Your task to perform on an android device: Clear the shopping cart on amazon.com. Image 0: 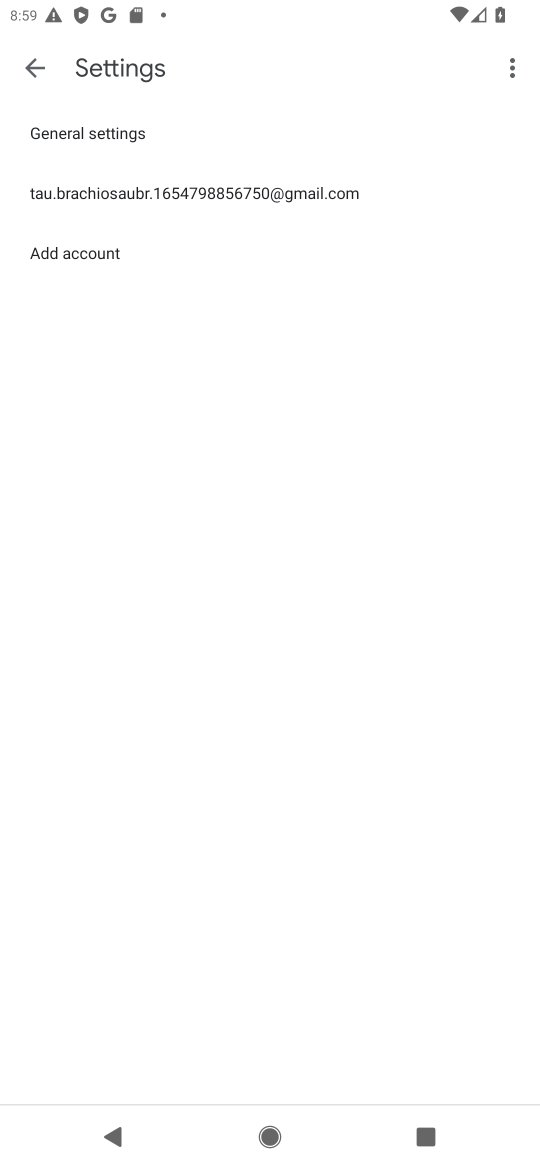
Step 0: press home button
Your task to perform on an android device: Clear the shopping cart on amazon.com. Image 1: 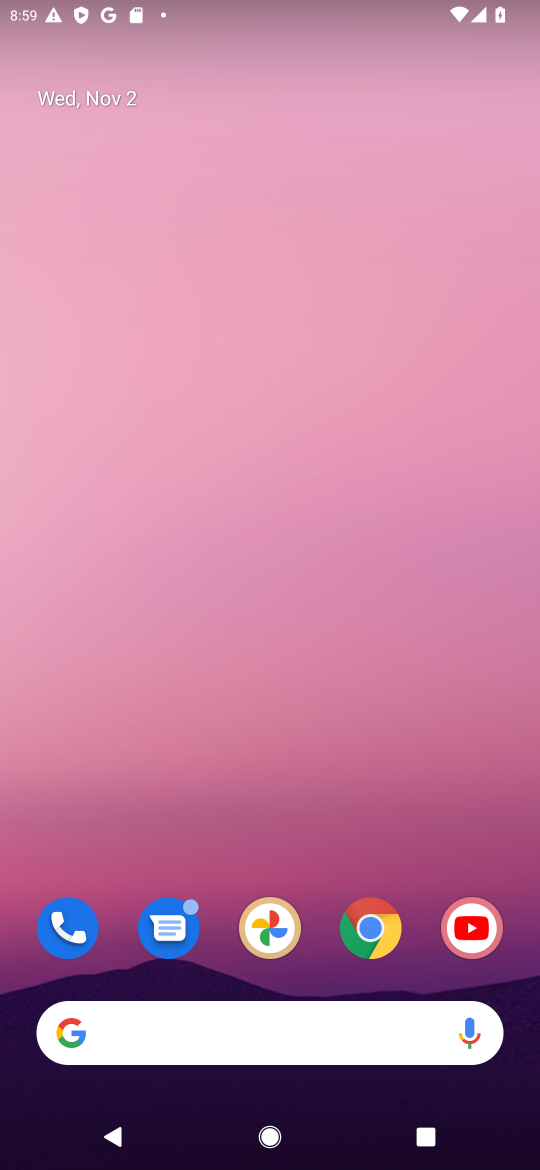
Step 1: click (374, 933)
Your task to perform on an android device: Clear the shopping cart on amazon.com. Image 2: 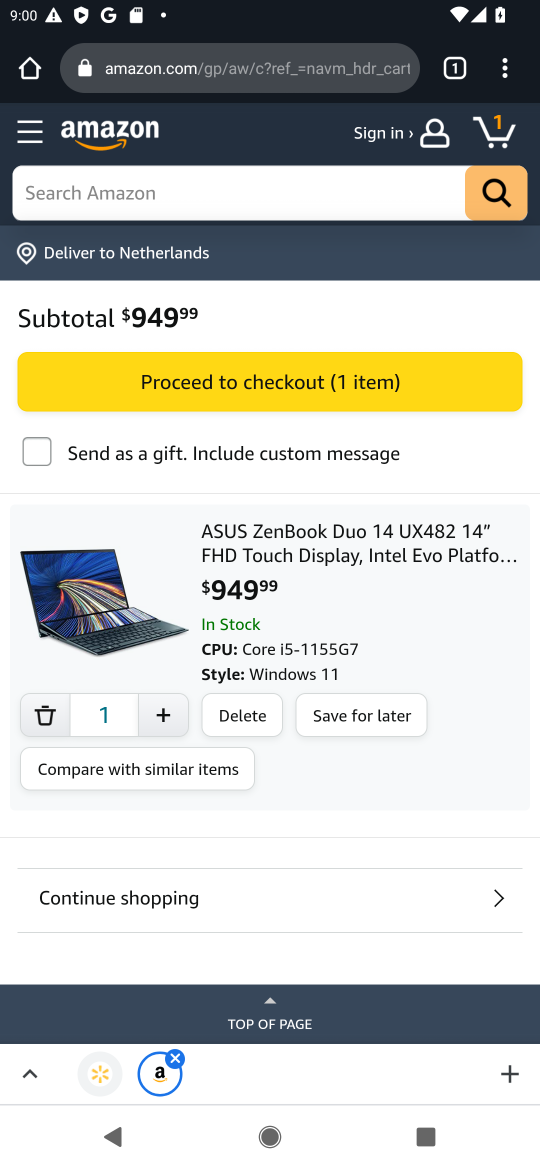
Step 2: click (207, 76)
Your task to perform on an android device: Clear the shopping cart on amazon.com. Image 3: 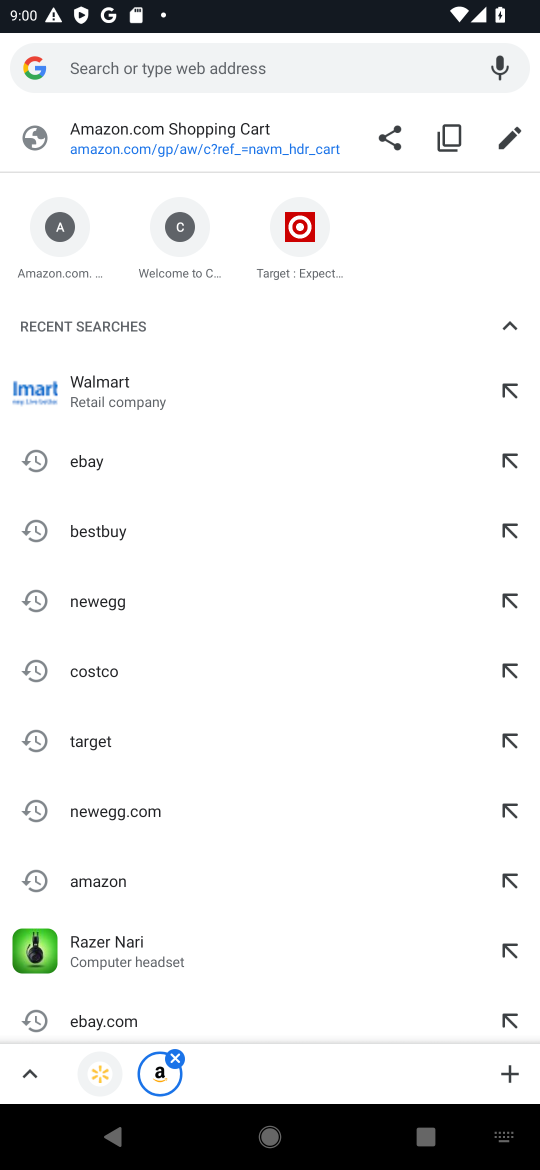
Step 3: type "amazon.com"
Your task to perform on an android device: Clear the shopping cart on amazon.com. Image 4: 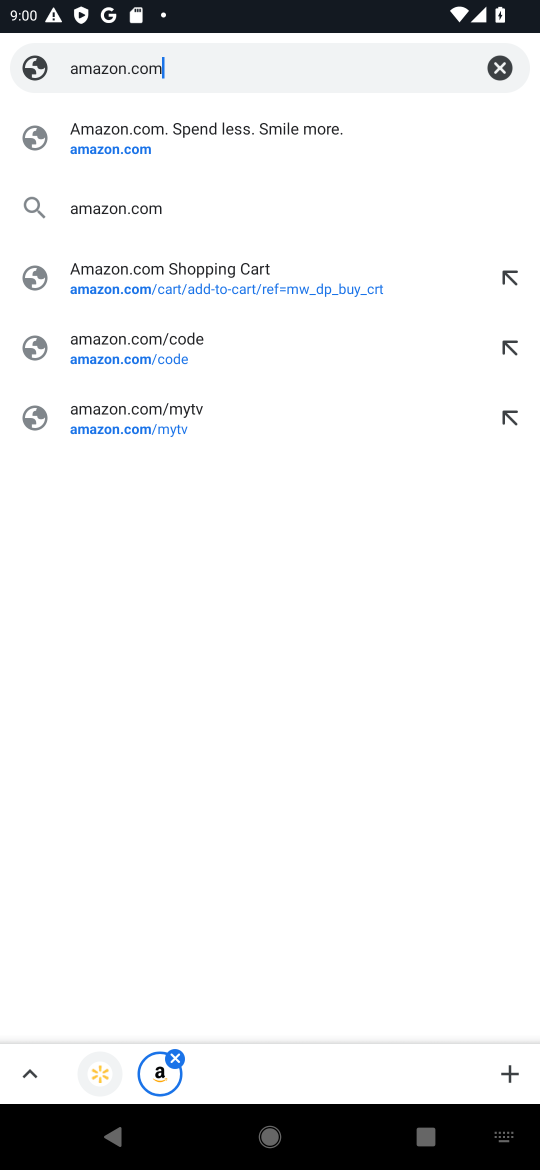
Step 4: click (268, 124)
Your task to perform on an android device: Clear the shopping cart on amazon.com. Image 5: 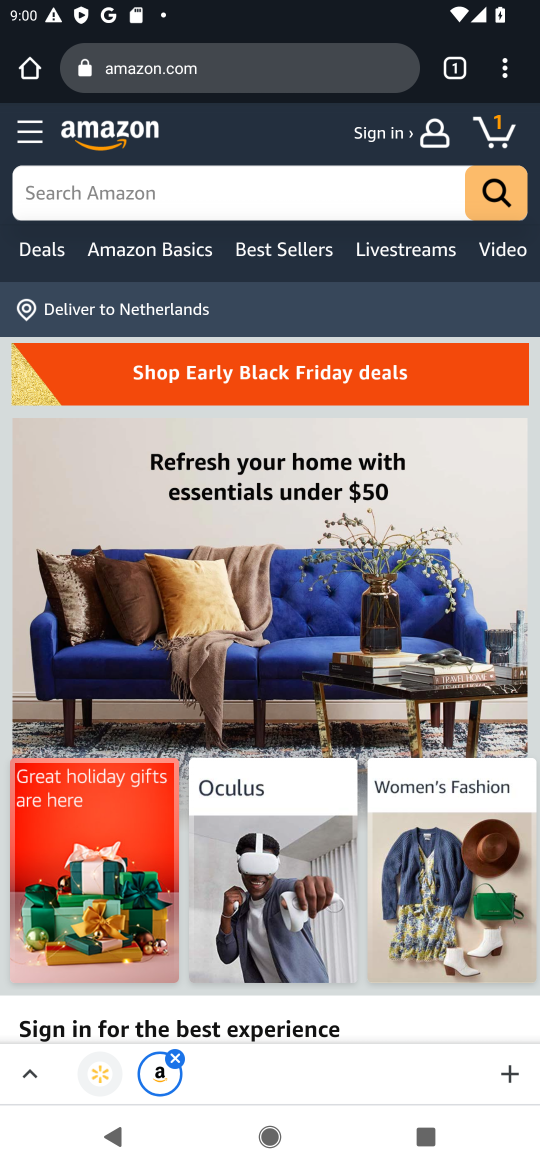
Step 5: click (507, 136)
Your task to perform on an android device: Clear the shopping cart on amazon.com. Image 6: 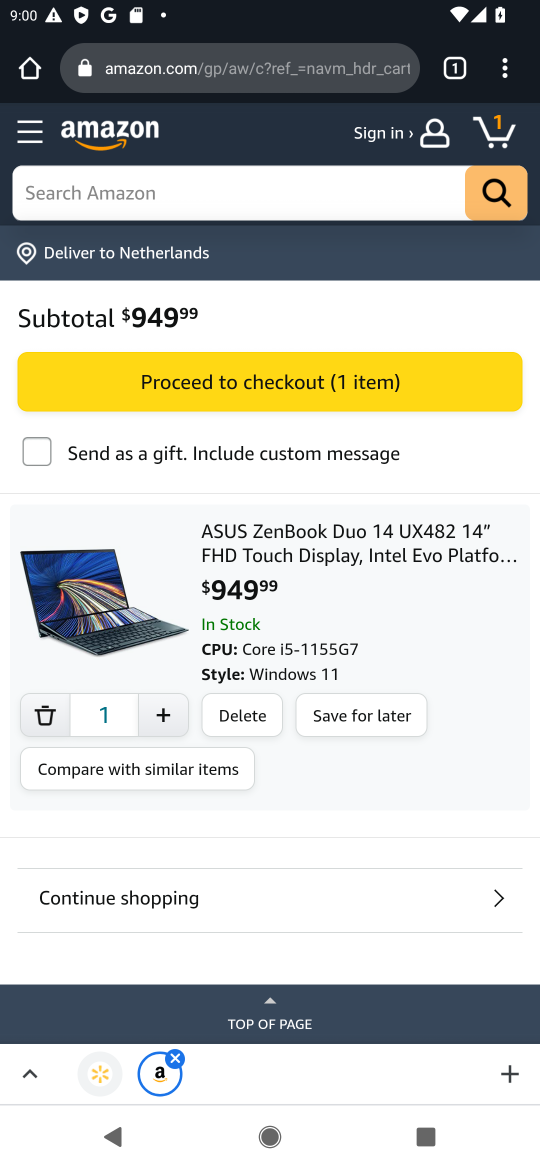
Step 6: click (263, 701)
Your task to perform on an android device: Clear the shopping cart on amazon.com. Image 7: 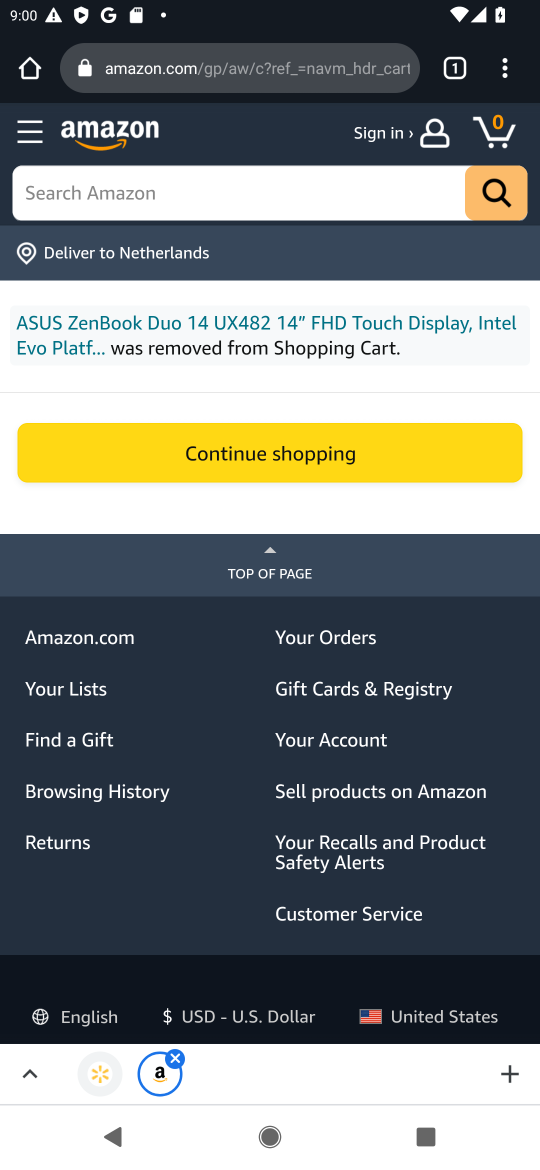
Step 7: click (353, 438)
Your task to perform on an android device: Clear the shopping cart on amazon.com. Image 8: 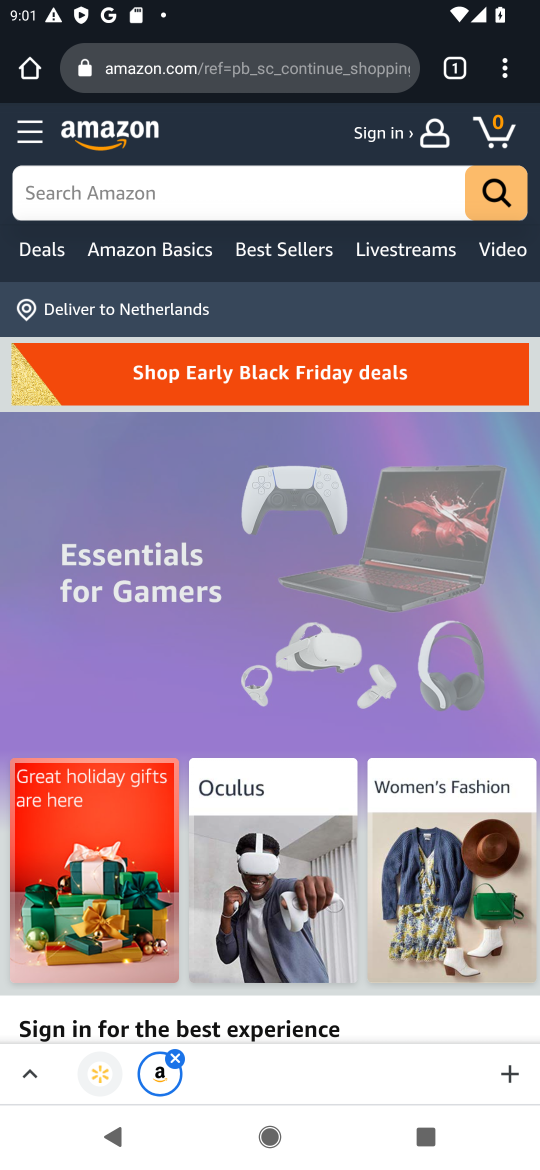
Step 8: drag from (459, 881) to (380, 583)
Your task to perform on an android device: Clear the shopping cart on amazon.com. Image 9: 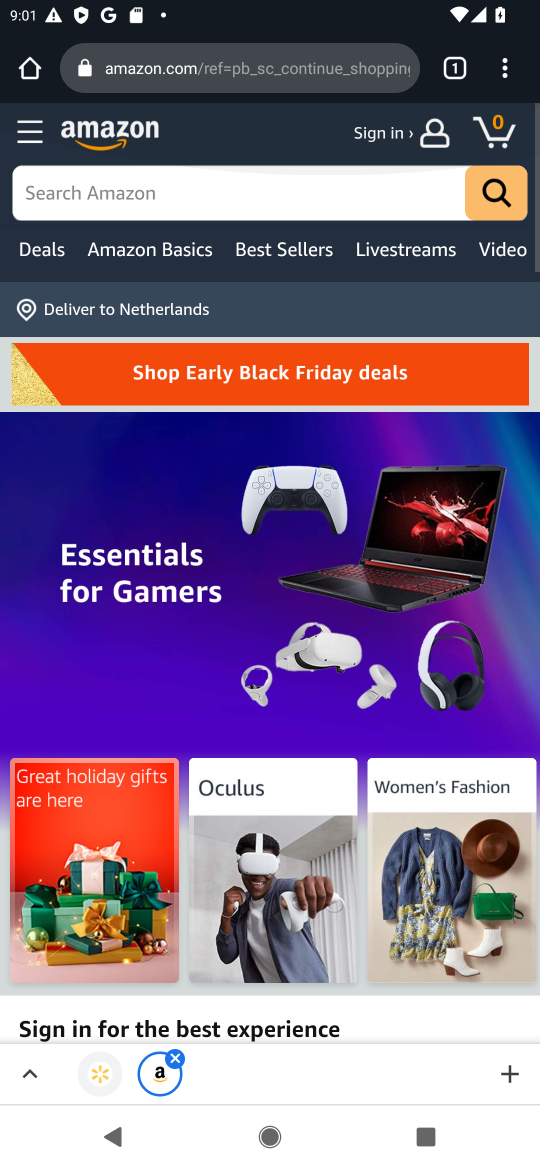
Step 9: drag from (329, 582) to (264, 521)
Your task to perform on an android device: Clear the shopping cart on amazon.com. Image 10: 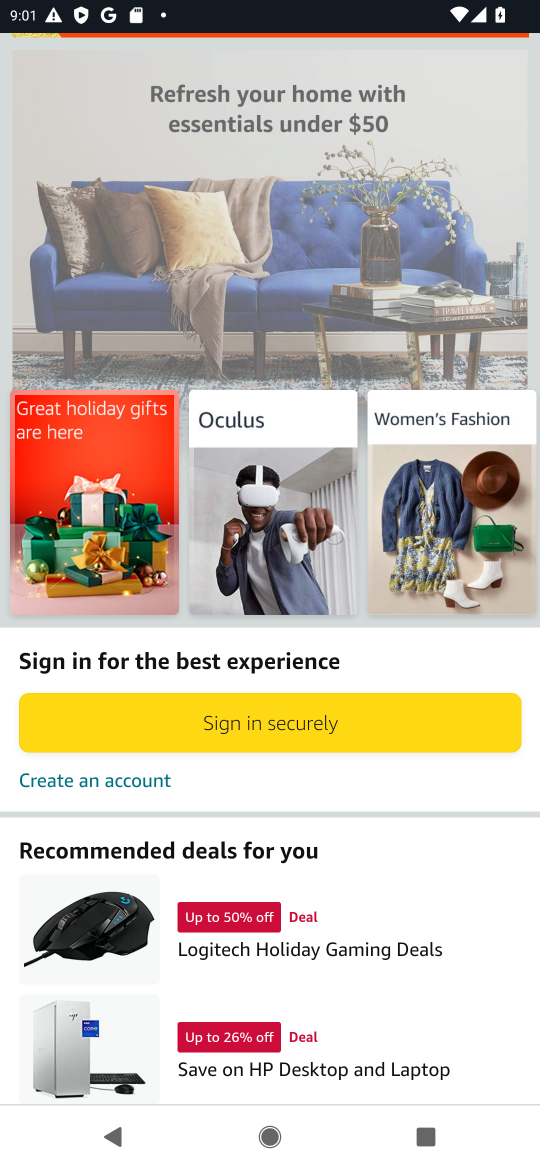
Step 10: drag from (268, 582) to (279, 492)
Your task to perform on an android device: Clear the shopping cart on amazon.com. Image 11: 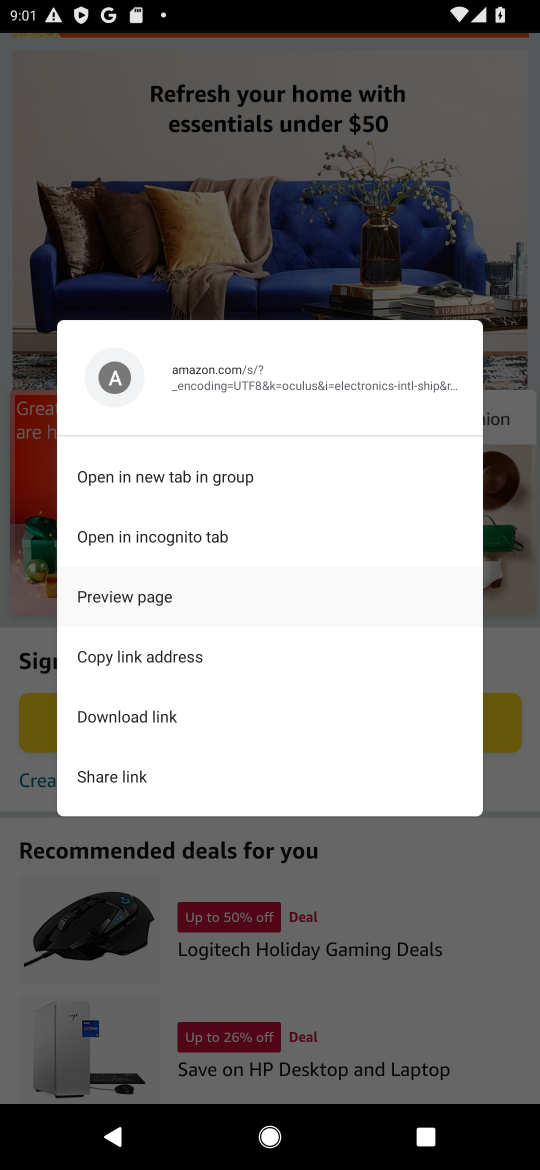
Step 11: click (284, 505)
Your task to perform on an android device: Clear the shopping cart on amazon.com. Image 12: 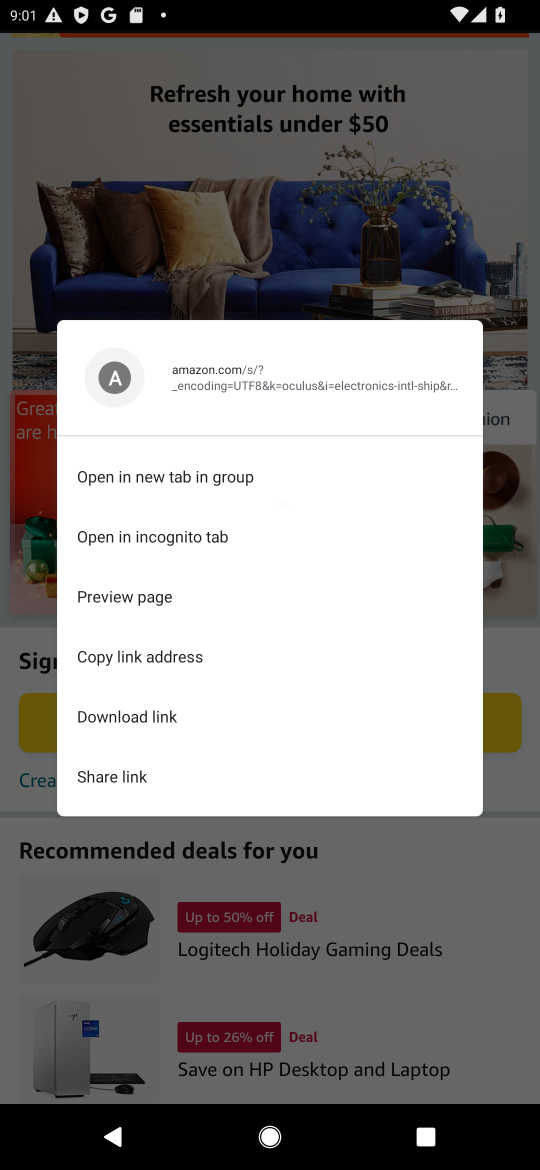
Step 12: click (356, 927)
Your task to perform on an android device: Clear the shopping cart on amazon.com. Image 13: 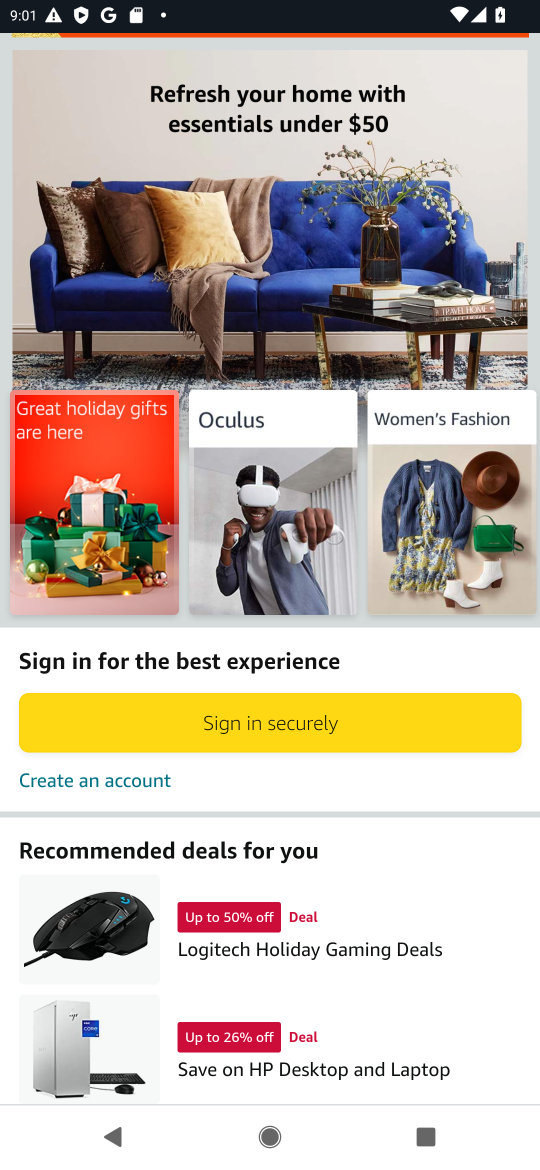
Step 13: drag from (252, 687) to (342, 366)
Your task to perform on an android device: Clear the shopping cart on amazon.com. Image 14: 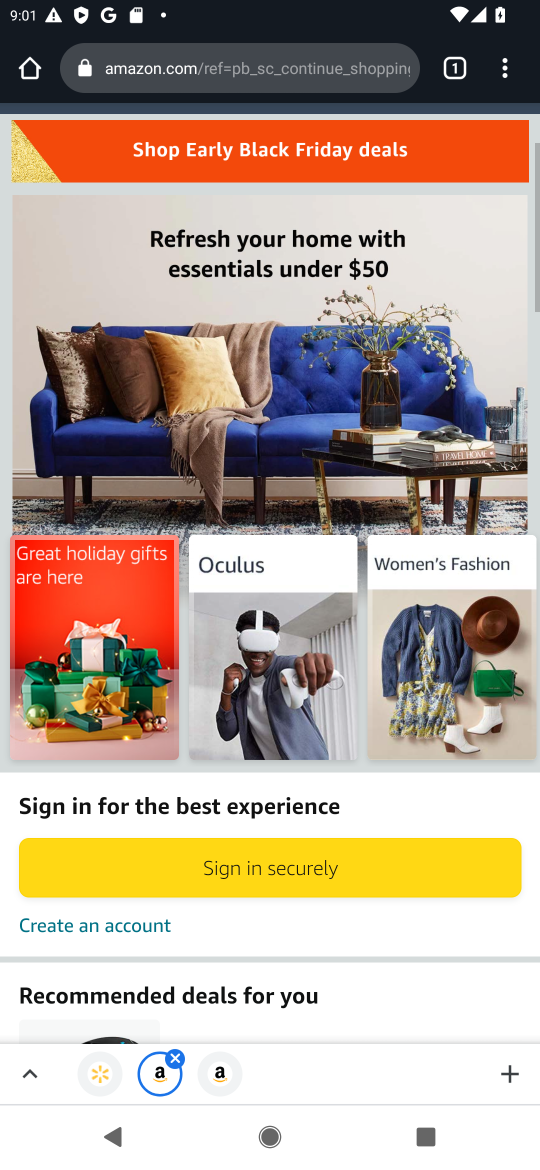
Step 14: drag from (284, 700) to (286, 394)
Your task to perform on an android device: Clear the shopping cart on amazon.com. Image 15: 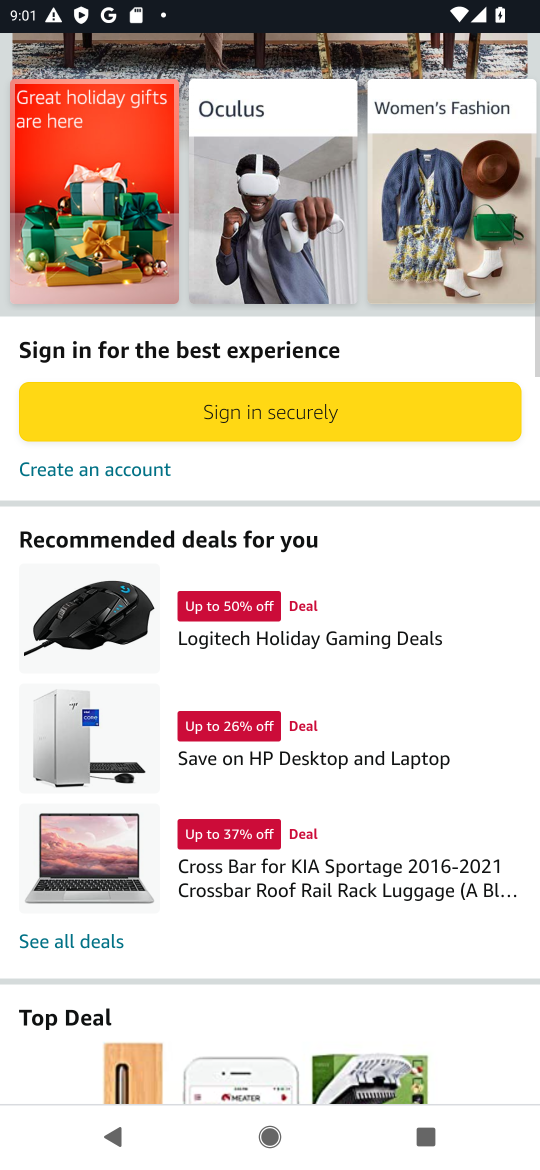
Step 15: drag from (337, 491) to (334, 346)
Your task to perform on an android device: Clear the shopping cart on amazon.com. Image 16: 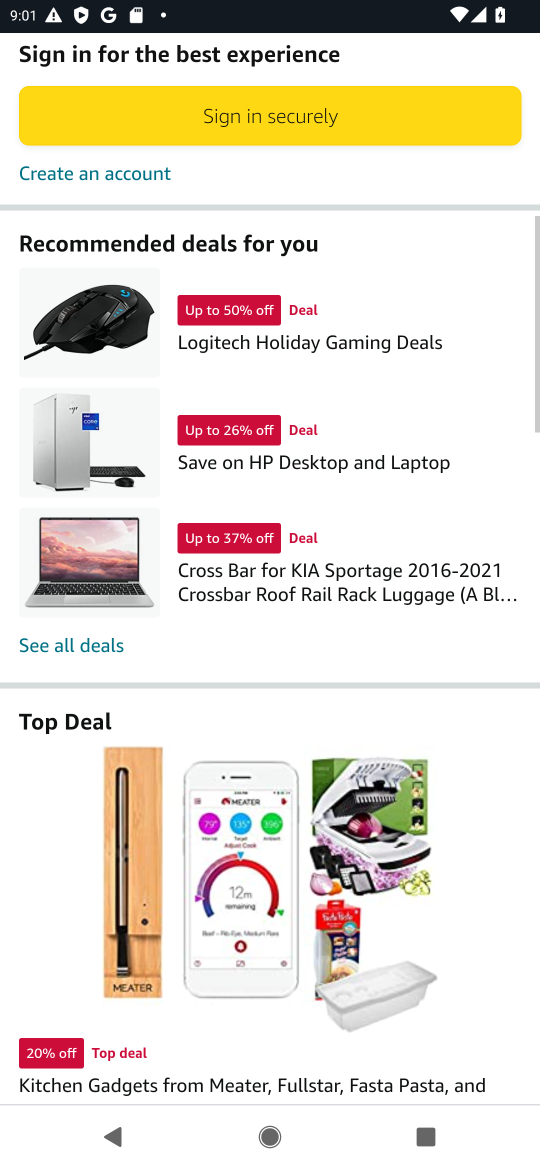
Step 16: drag from (349, 556) to (377, 469)
Your task to perform on an android device: Clear the shopping cart on amazon.com. Image 17: 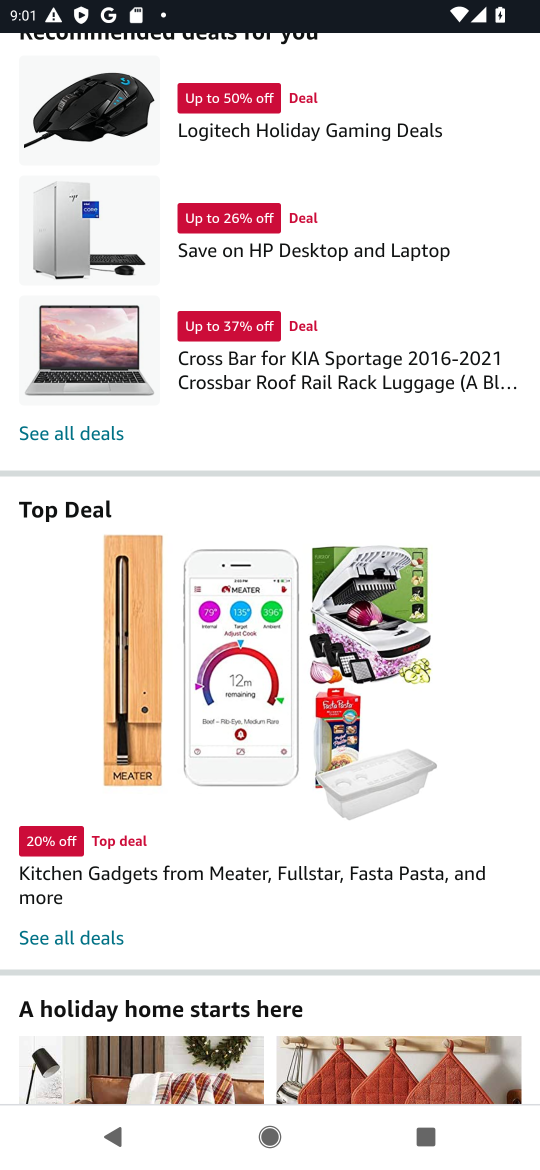
Step 17: drag from (436, 752) to (431, 457)
Your task to perform on an android device: Clear the shopping cart on amazon.com. Image 18: 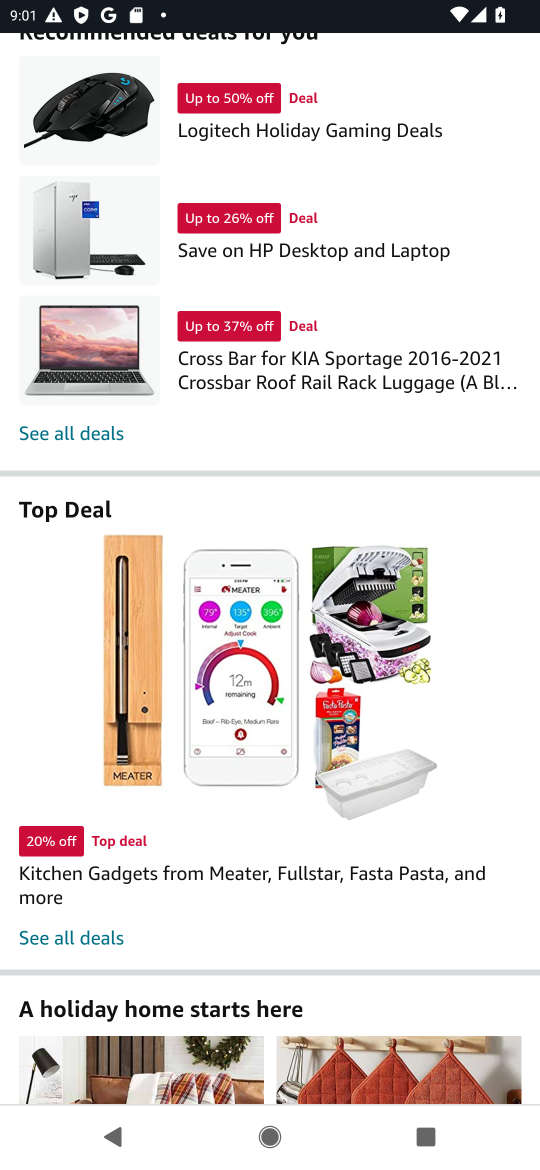
Step 18: drag from (388, 723) to (384, 343)
Your task to perform on an android device: Clear the shopping cart on amazon.com. Image 19: 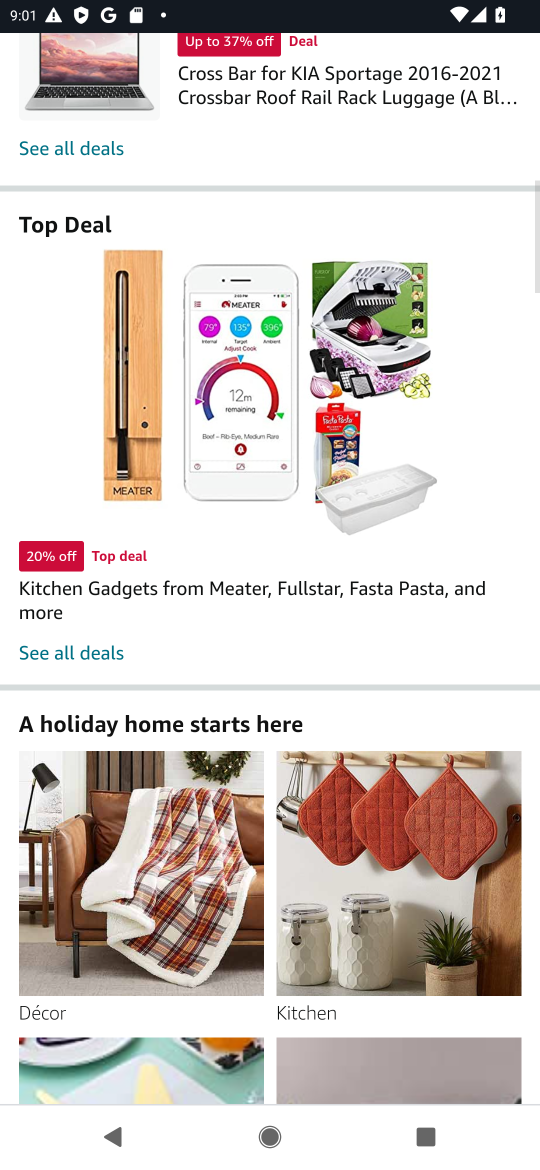
Step 19: click (376, 315)
Your task to perform on an android device: Clear the shopping cart on amazon.com. Image 20: 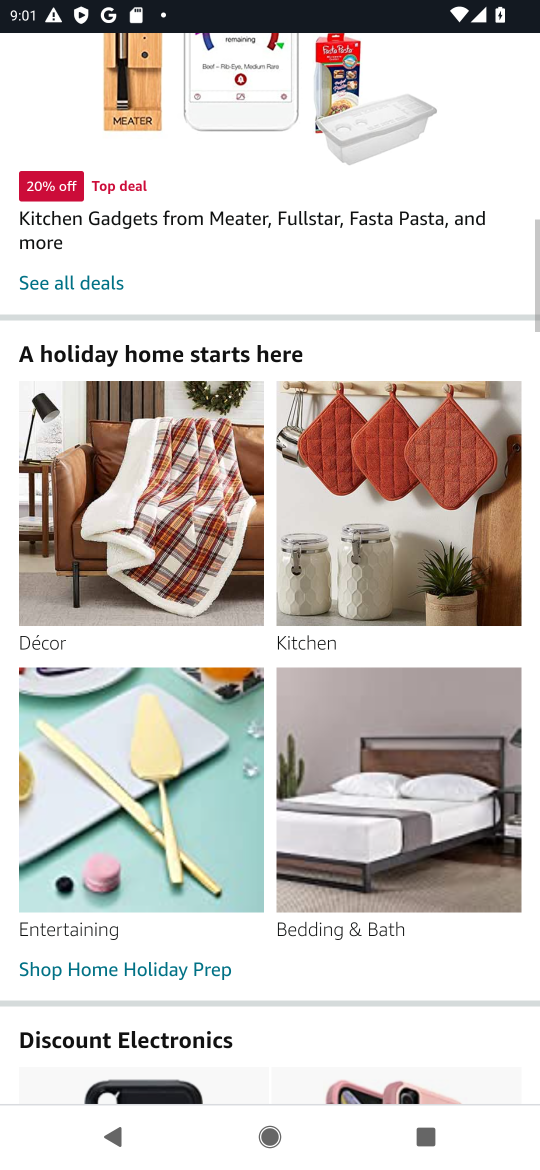
Step 20: drag from (398, 474) to (384, 391)
Your task to perform on an android device: Clear the shopping cart on amazon.com. Image 21: 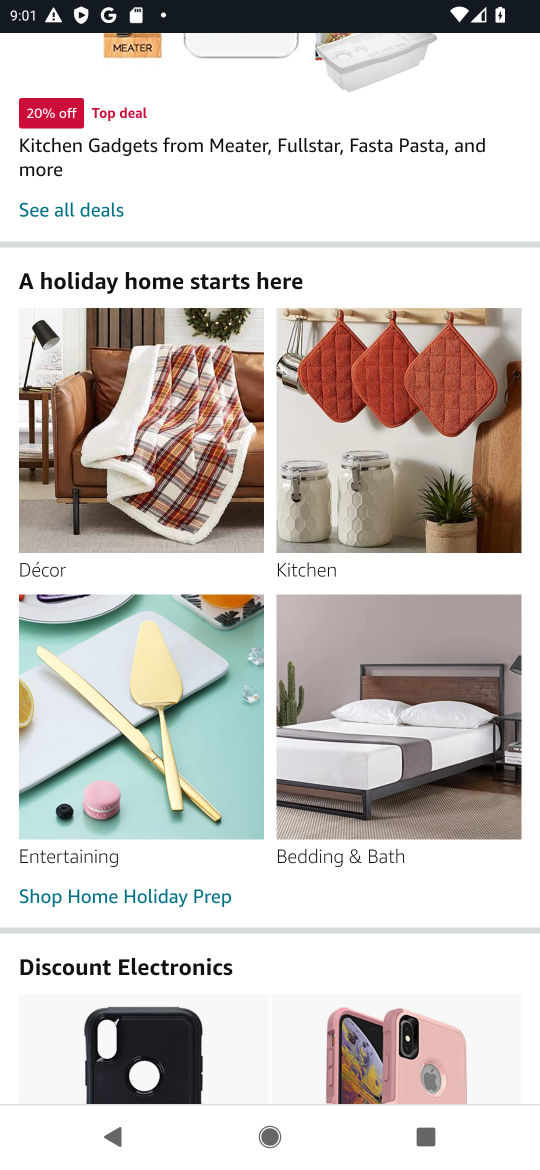
Step 21: drag from (429, 893) to (398, 298)
Your task to perform on an android device: Clear the shopping cart on amazon.com. Image 22: 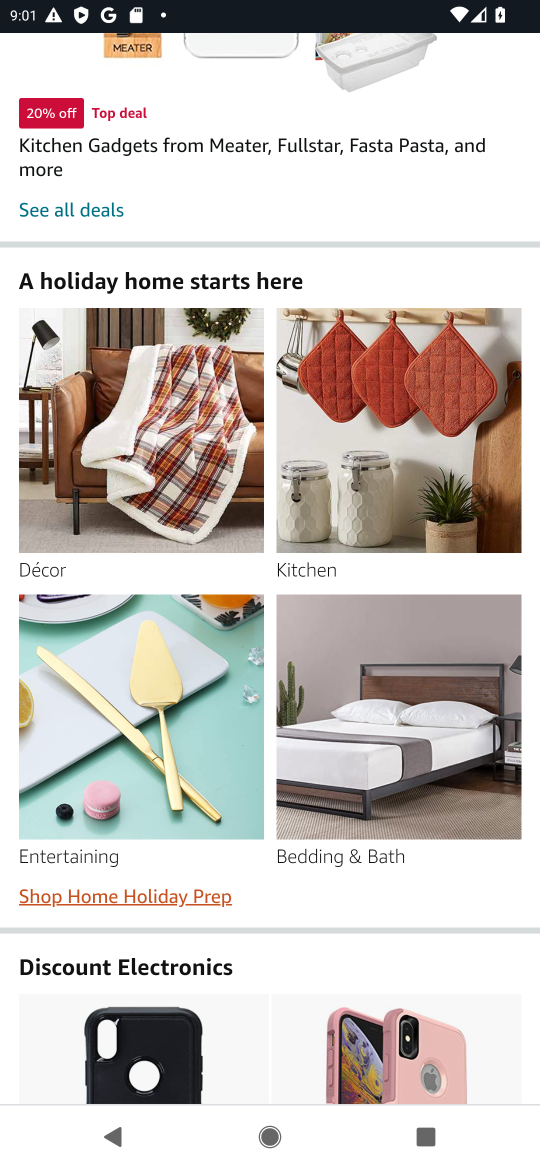
Step 22: click (371, 312)
Your task to perform on an android device: Clear the shopping cart on amazon.com. Image 23: 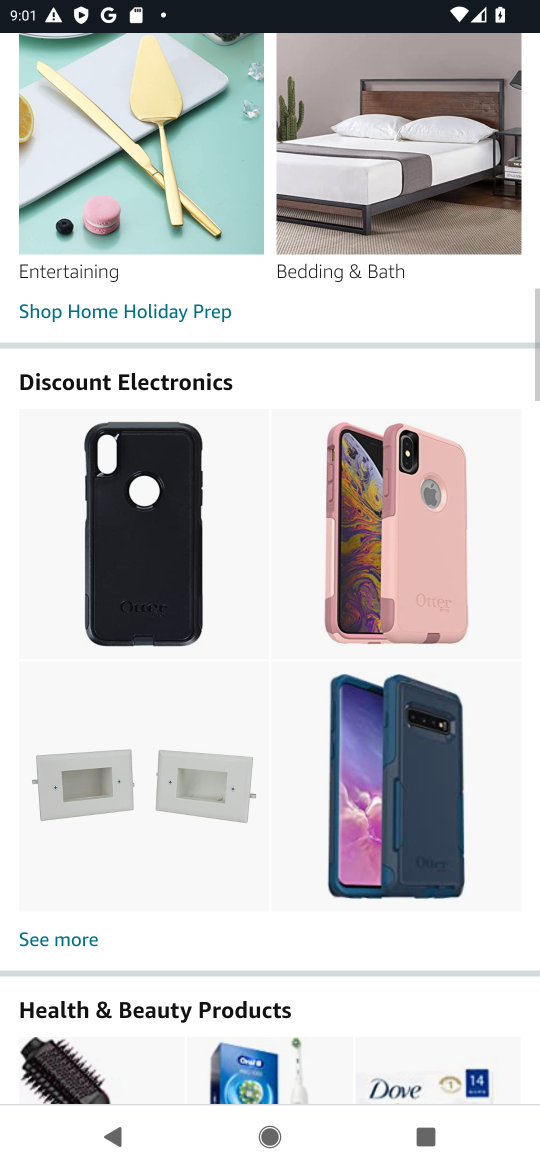
Step 23: task complete